Your task to perform on an android device: open the mobile data screen to see how much data has been used Image 0: 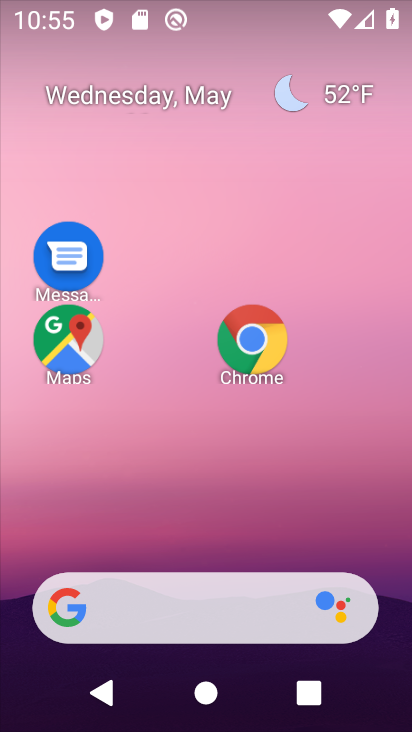
Step 0: drag from (237, 483) to (223, 8)
Your task to perform on an android device: open the mobile data screen to see how much data has been used Image 1: 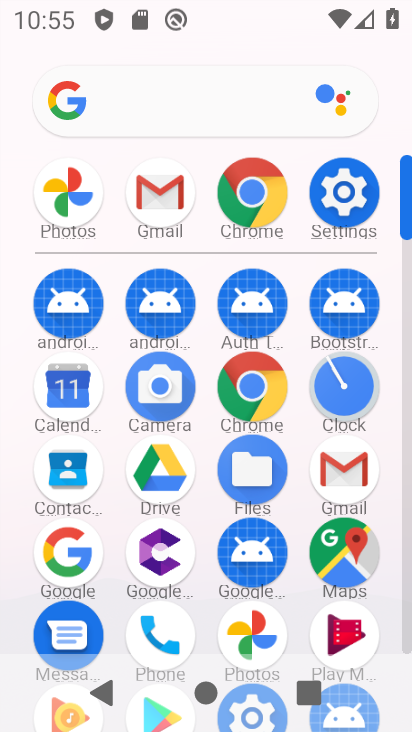
Step 1: click (342, 187)
Your task to perform on an android device: open the mobile data screen to see how much data has been used Image 2: 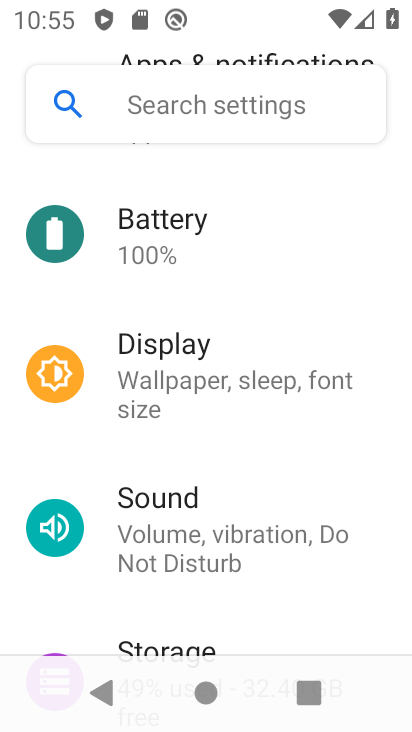
Step 2: drag from (167, 191) to (224, 654)
Your task to perform on an android device: open the mobile data screen to see how much data has been used Image 3: 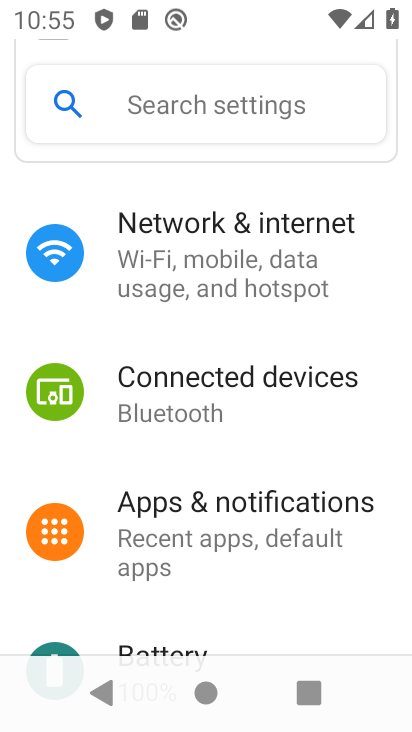
Step 3: click (206, 248)
Your task to perform on an android device: open the mobile data screen to see how much data has been used Image 4: 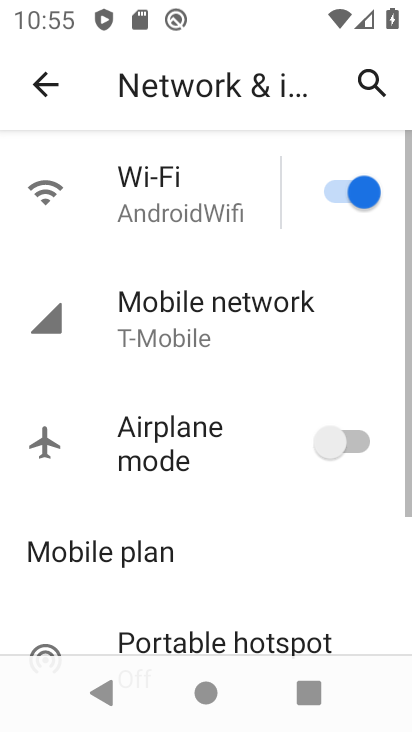
Step 4: click (206, 319)
Your task to perform on an android device: open the mobile data screen to see how much data has been used Image 5: 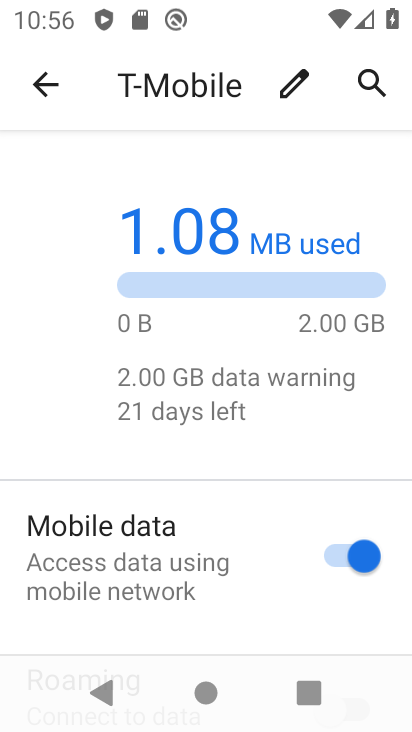
Step 5: task complete